Your task to perform on an android device: What's on my calendar today? Image 0: 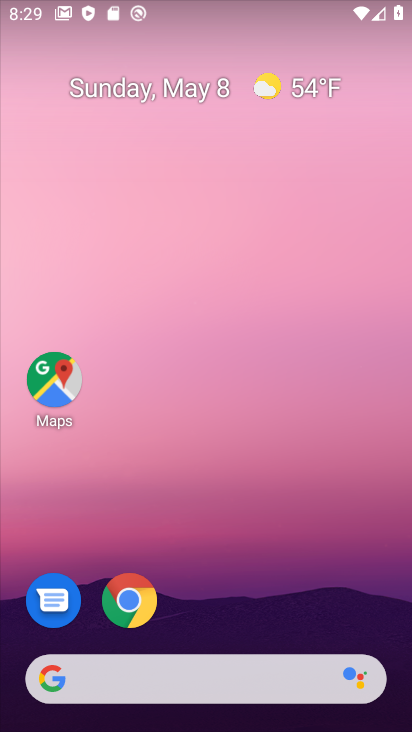
Step 0: click (182, 96)
Your task to perform on an android device: What's on my calendar today? Image 1: 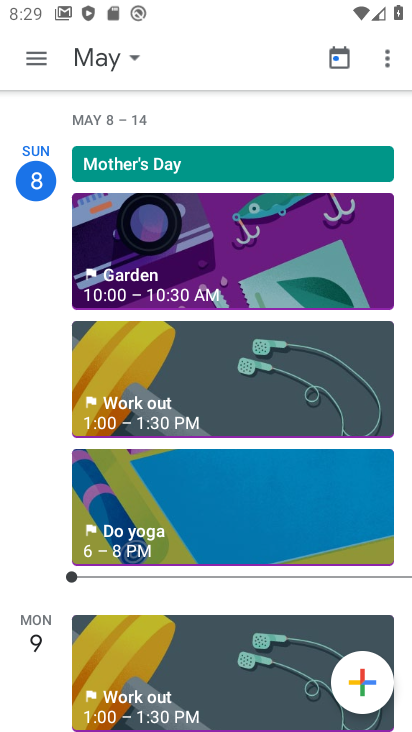
Step 1: task complete